Your task to perform on an android device: change the clock display to analog Image 0: 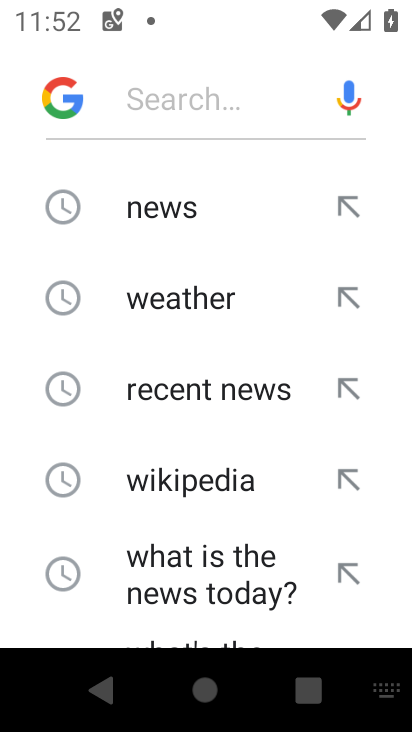
Step 0: press back button
Your task to perform on an android device: change the clock display to analog Image 1: 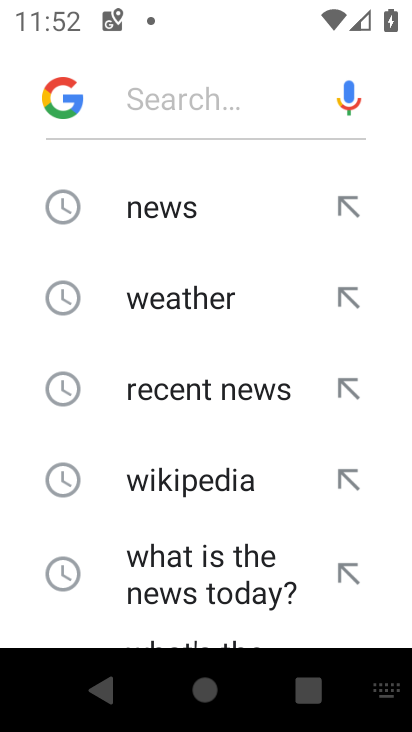
Step 1: press back button
Your task to perform on an android device: change the clock display to analog Image 2: 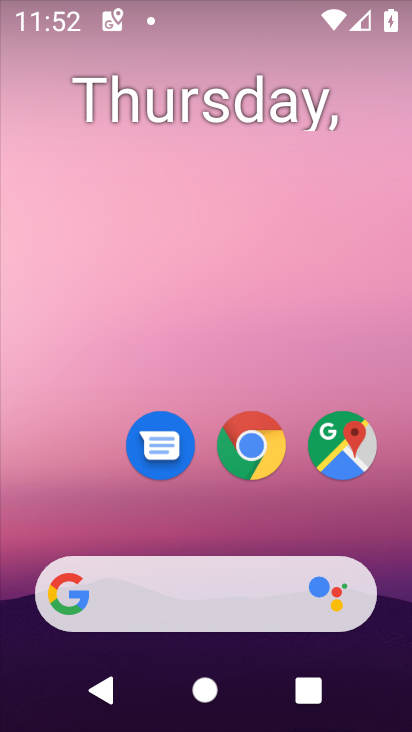
Step 2: drag from (275, 691) to (224, 149)
Your task to perform on an android device: change the clock display to analog Image 3: 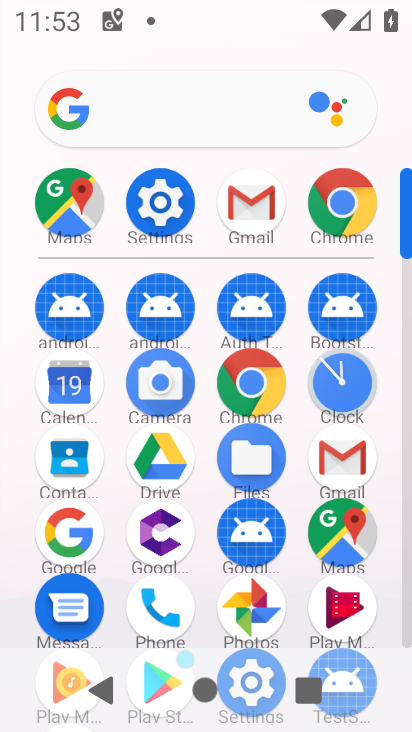
Step 3: click (349, 403)
Your task to perform on an android device: change the clock display to analog Image 4: 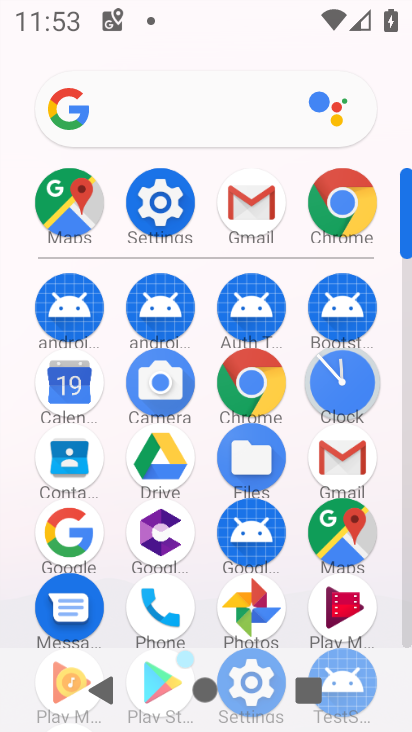
Step 4: click (348, 403)
Your task to perform on an android device: change the clock display to analog Image 5: 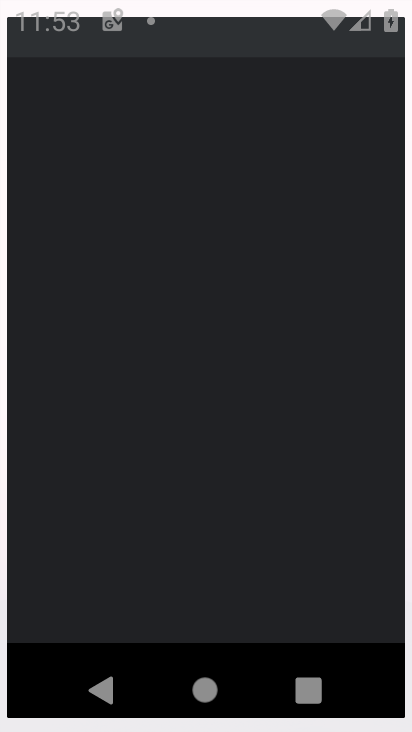
Step 5: click (348, 403)
Your task to perform on an android device: change the clock display to analog Image 6: 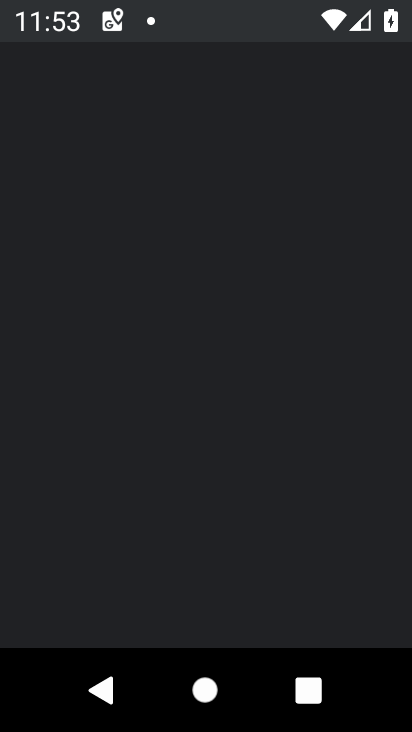
Step 6: click (349, 402)
Your task to perform on an android device: change the clock display to analog Image 7: 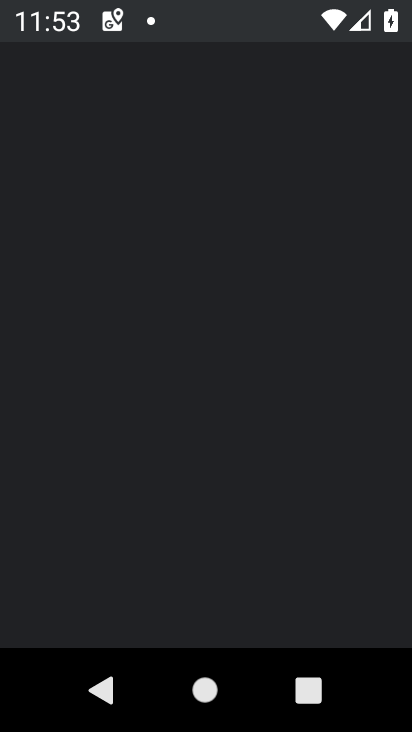
Step 7: click (349, 402)
Your task to perform on an android device: change the clock display to analog Image 8: 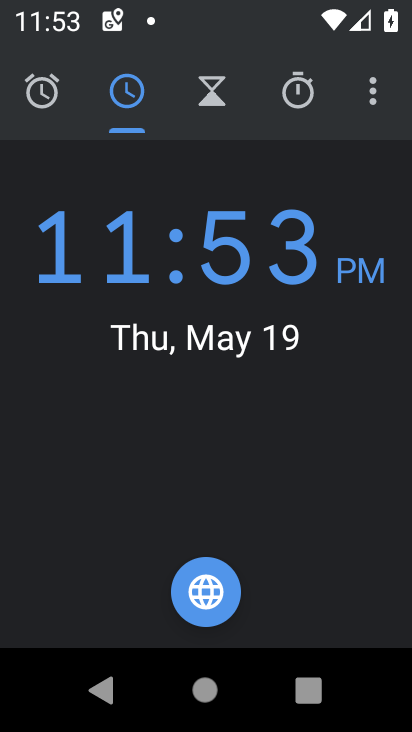
Step 8: click (377, 90)
Your task to perform on an android device: change the clock display to analog Image 9: 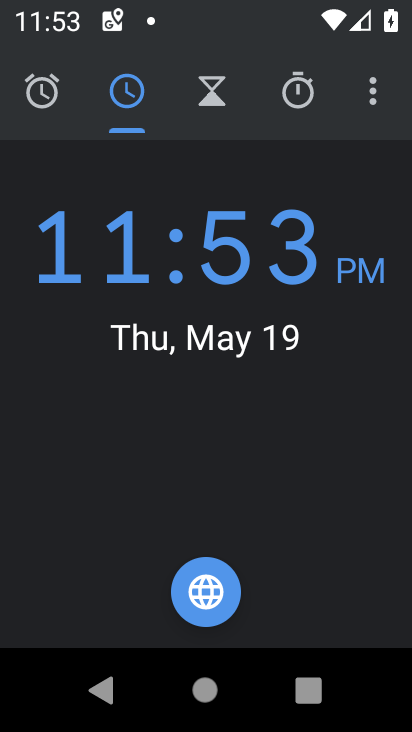
Step 9: click (372, 105)
Your task to perform on an android device: change the clock display to analog Image 10: 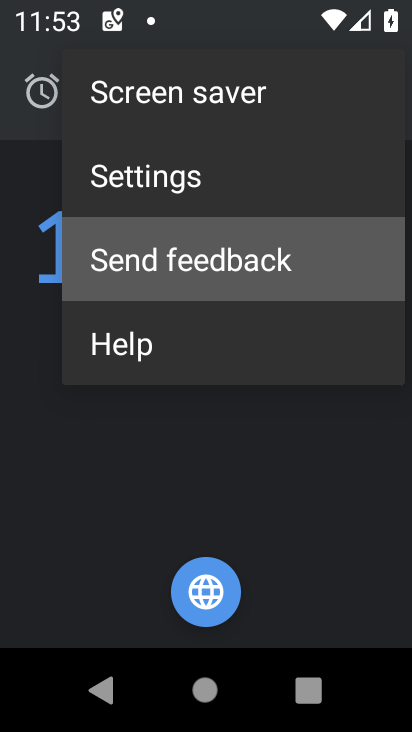
Step 10: click (372, 105)
Your task to perform on an android device: change the clock display to analog Image 11: 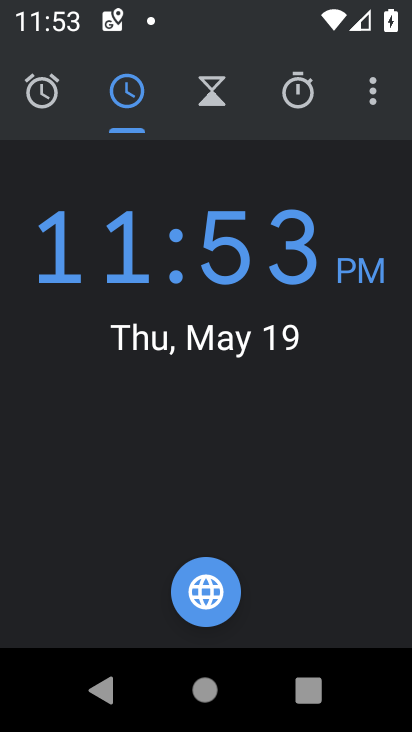
Step 11: click (372, 105)
Your task to perform on an android device: change the clock display to analog Image 12: 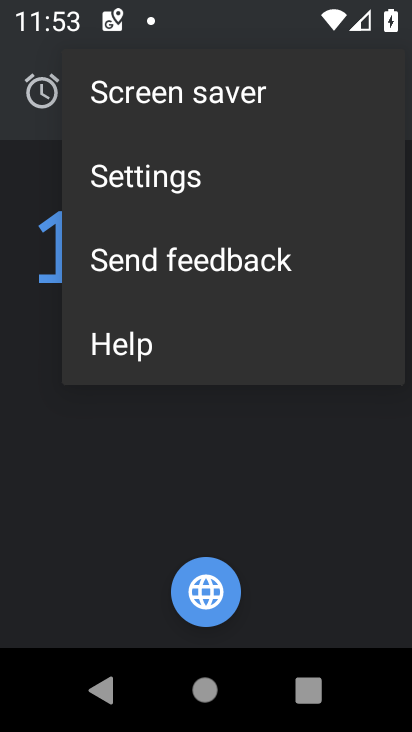
Step 12: click (124, 168)
Your task to perform on an android device: change the clock display to analog Image 13: 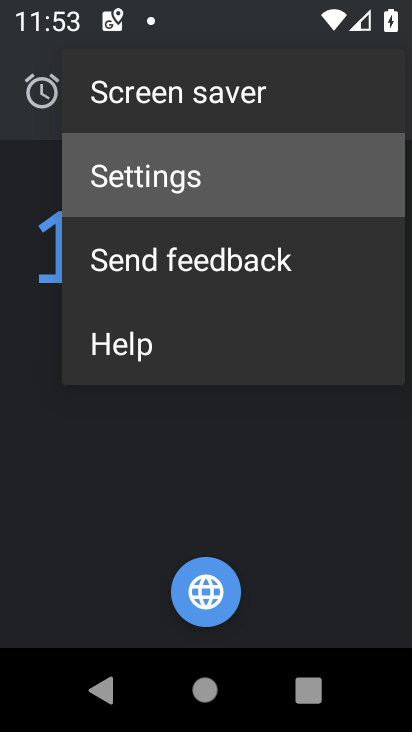
Step 13: click (123, 172)
Your task to perform on an android device: change the clock display to analog Image 14: 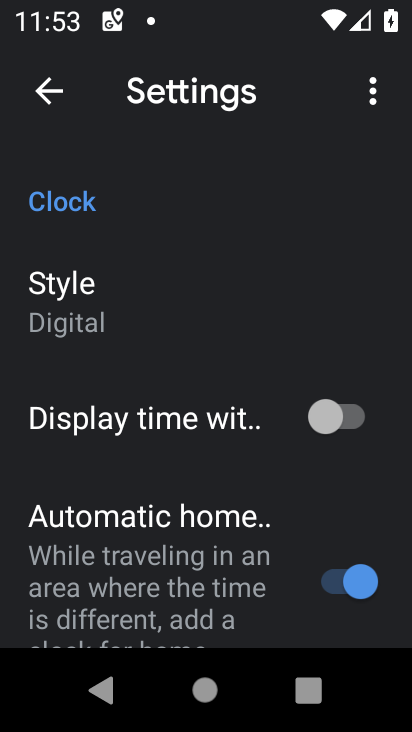
Step 14: click (137, 157)
Your task to perform on an android device: change the clock display to analog Image 15: 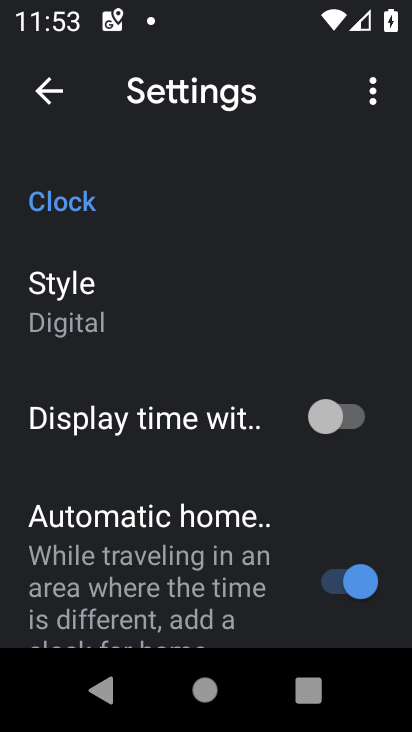
Step 15: click (141, 167)
Your task to perform on an android device: change the clock display to analog Image 16: 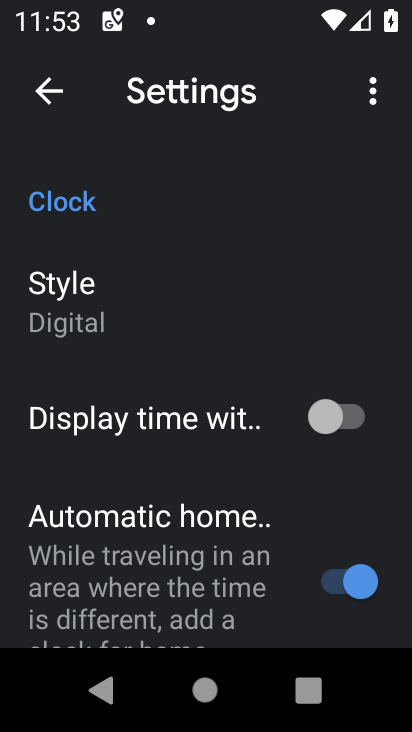
Step 16: click (145, 168)
Your task to perform on an android device: change the clock display to analog Image 17: 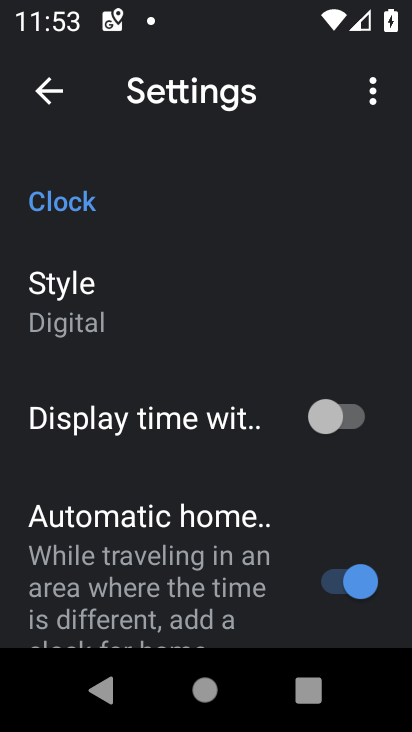
Step 17: click (154, 294)
Your task to perform on an android device: change the clock display to analog Image 18: 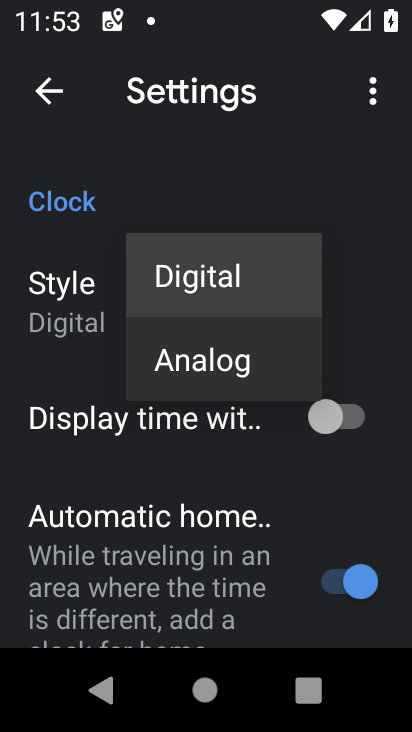
Step 18: click (185, 363)
Your task to perform on an android device: change the clock display to analog Image 19: 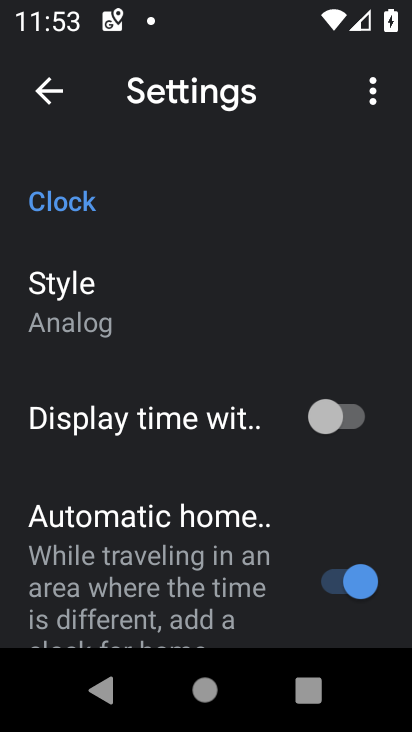
Step 19: task complete